Your task to perform on an android device: What is the recent news? Image 0: 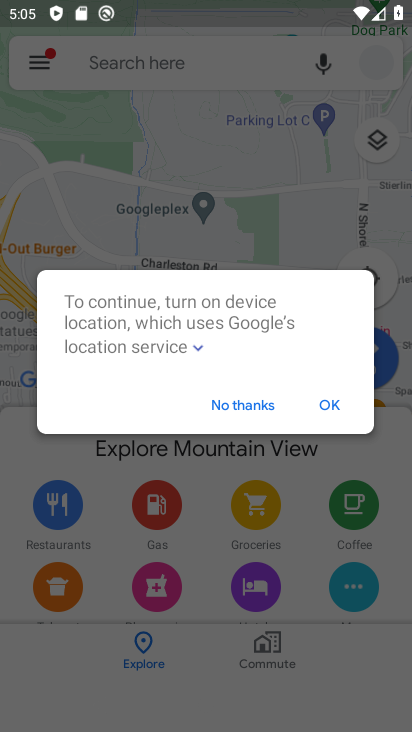
Step 0: press home button
Your task to perform on an android device: What is the recent news? Image 1: 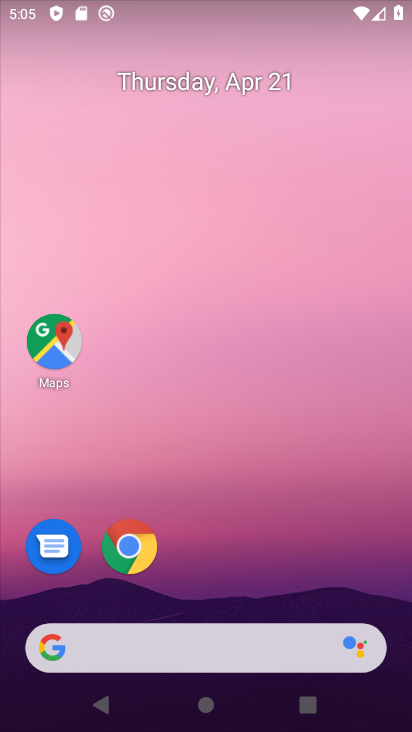
Step 1: drag from (257, 585) to (259, 130)
Your task to perform on an android device: What is the recent news? Image 2: 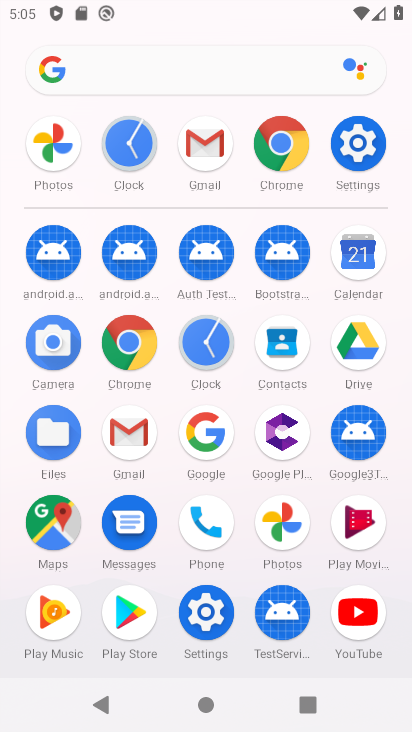
Step 2: click (210, 431)
Your task to perform on an android device: What is the recent news? Image 3: 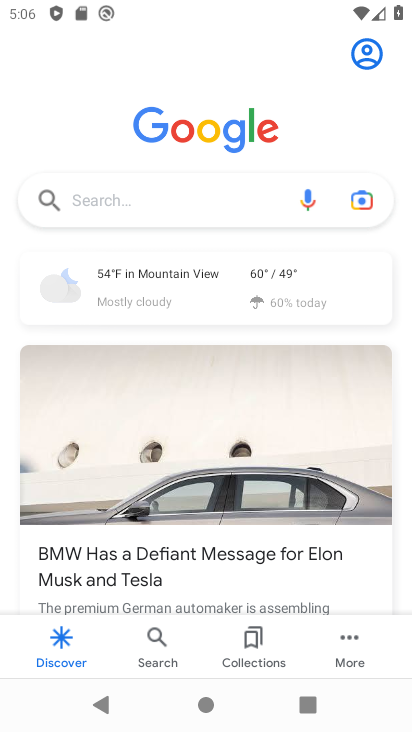
Step 3: click (187, 200)
Your task to perform on an android device: What is the recent news? Image 4: 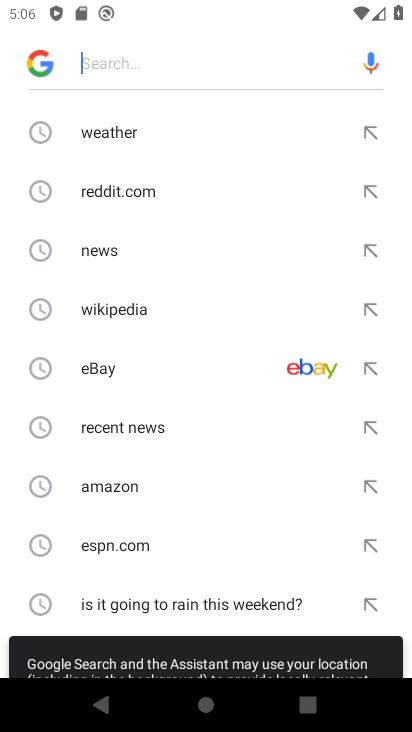
Step 4: click (134, 438)
Your task to perform on an android device: What is the recent news? Image 5: 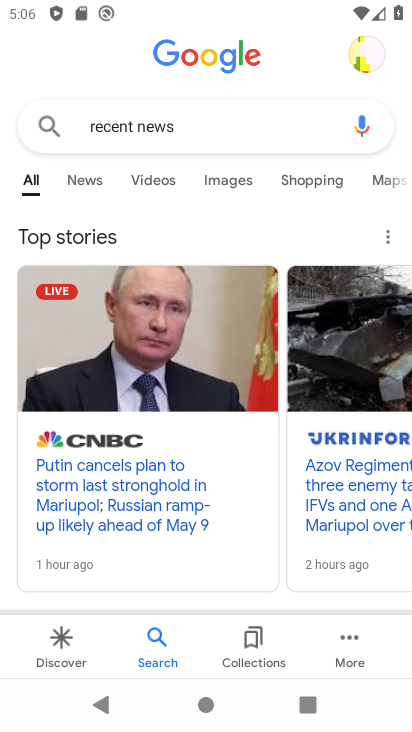
Step 5: click (83, 178)
Your task to perform on an android device: What is the recent news? Image 6: 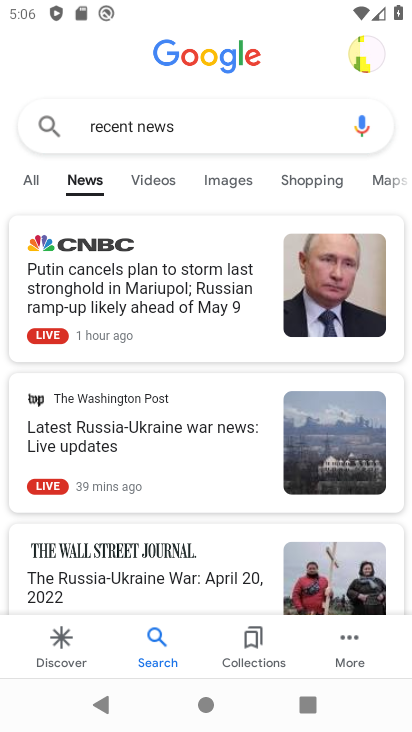
Step 6: task complete